Your task to perform on an android device: Show me recent news Image 0: 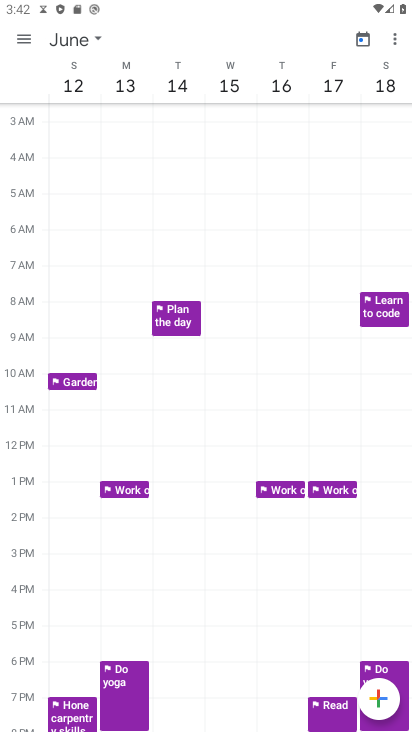
Step 0: press home button
Your task to perform on an android device: Show me recent news Image 1: 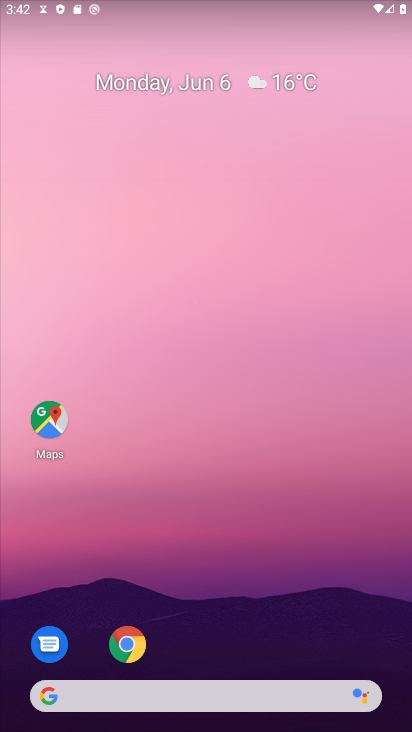
Step 1: click (135, 697)
Your task to perform on an android device: Show me recent news Image 2: 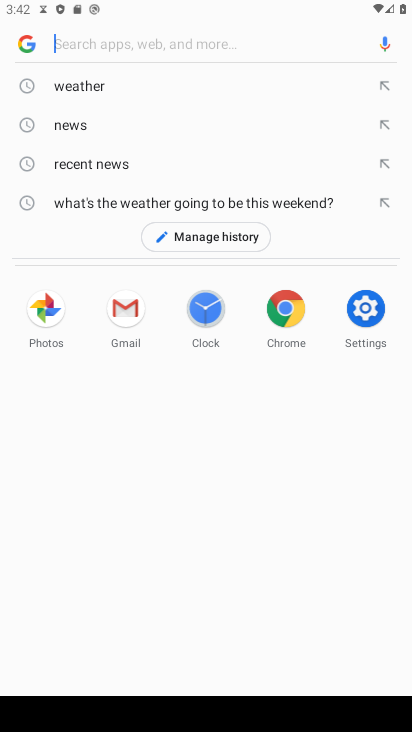
Step 2: click (72, 167)
Your task to perform on an android device: Show me recent news Image 3: 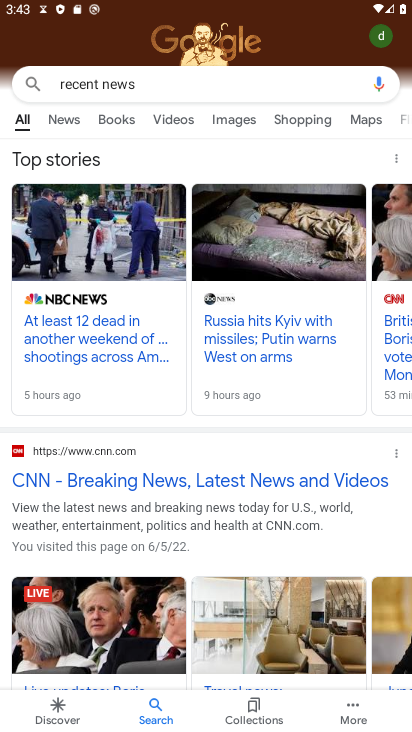
Step 3: task complete